Your task to perform on an android device: read, delete, or share a saved page in the chrome app Image 0: 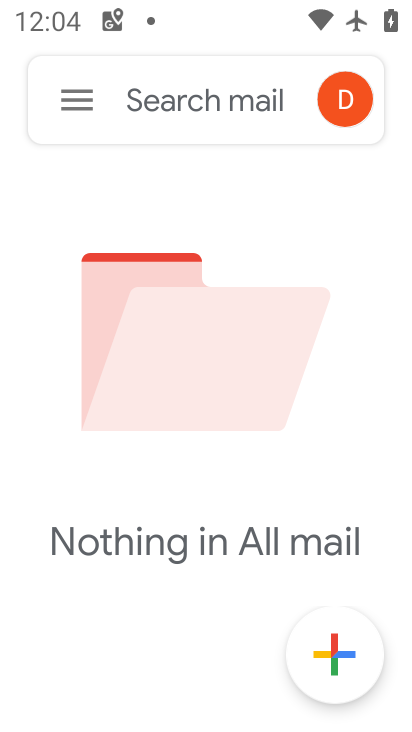
Step 0: press home button
Your task to perform on an android device: read, delete, or share a saved page in the chrome app Image 1: 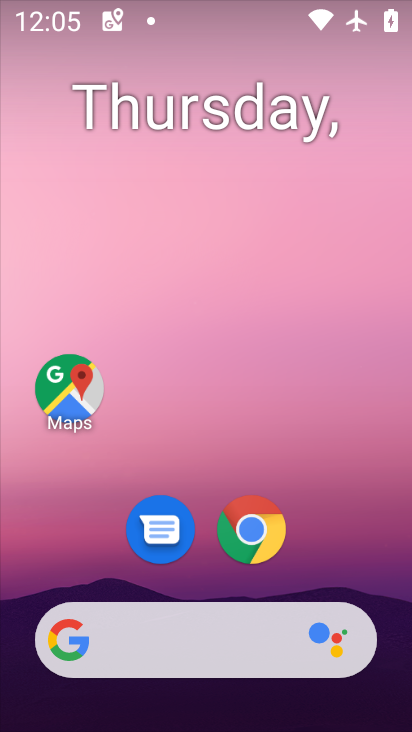
Step 1: click (251, 524)
Your task to perform on an android device: read, delete, or share a saved page in the chrome app Image 2: 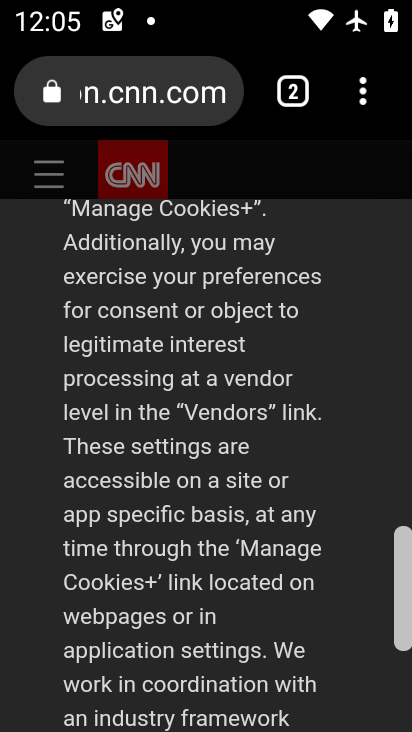
Step 2: click (360, 98)
Your task to perform on an android device: read, delete, or share a saved page in the chrome app Image 3: 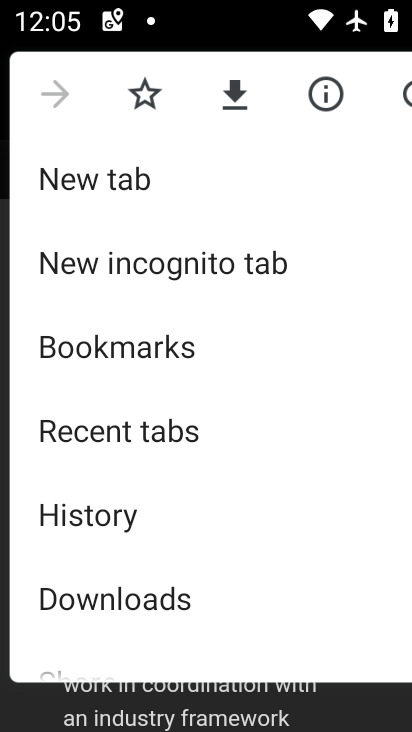
Step 3: click (115, 600)
Your task to perform on an android device: read, delete, or share a saved page in the chrome app Image 4: 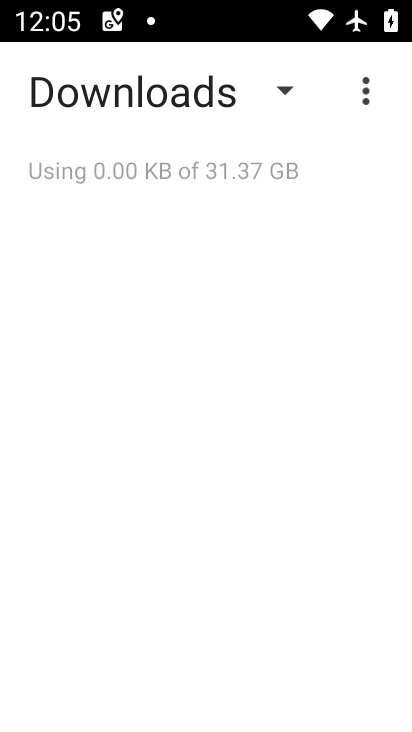
Step 4: click (276, 88)
Your task to perform on an android device: read, delete, or share a saved page in the chrome app Image 5: 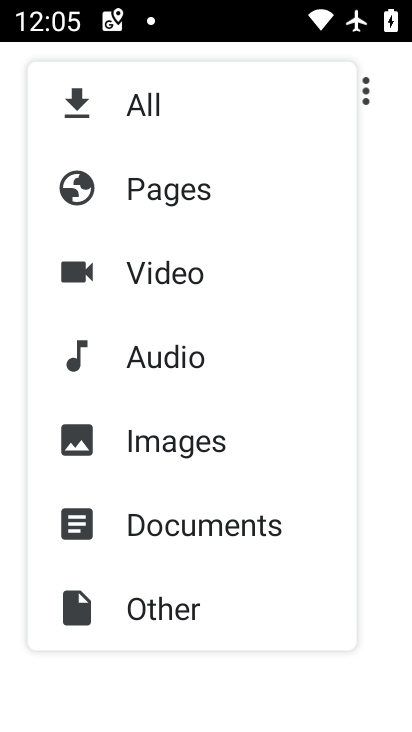
Step 5: click (134, 185)
Your task to perform on an android device: read, delete, or share a saved page in the chrome app Image 6: 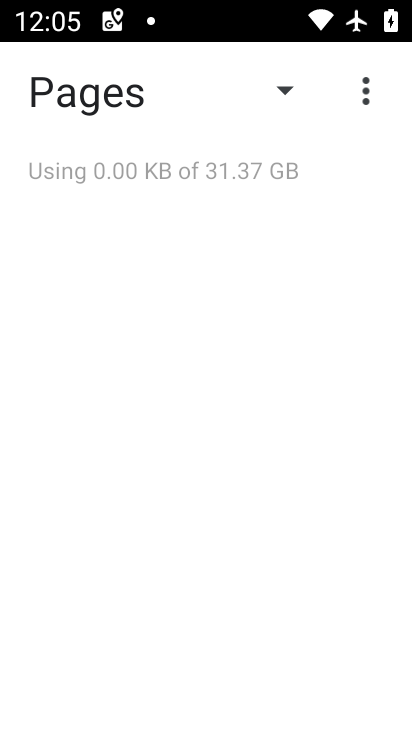
Step 6: task complete